Your task to perform on an android device: move an email to a new category in the gmail app Image 0: 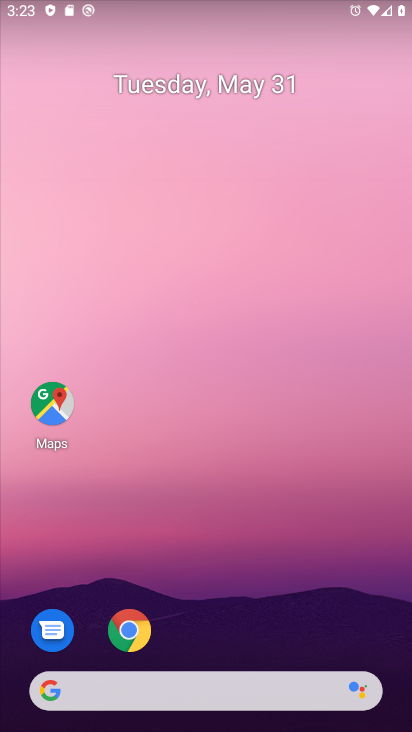
Step 0: drag from (339, 700) to (310, 16)
Your task to perform on an android device: move an email to a new category in the gmail app Image 1: 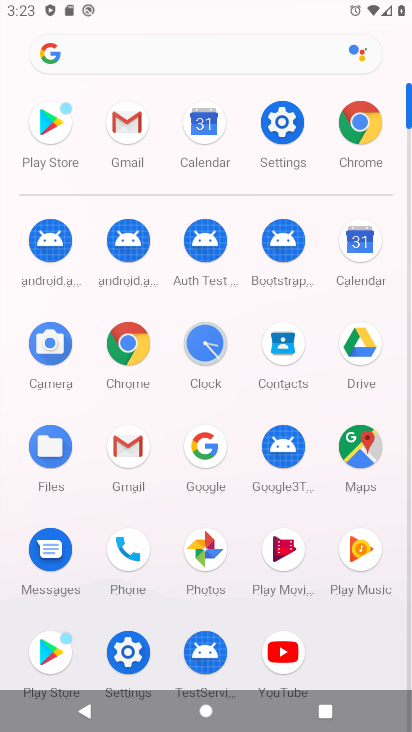
Step 1: click (139, 453)
Your task to perform on an android device: move an email to a new category in the gmail app Image 2: 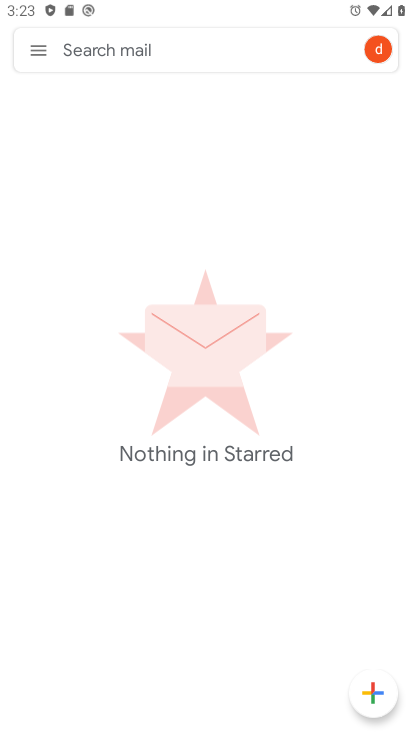
Step 2: click (35, 50)
Your task to perform on an android device: move an email to a new category in the gmail app Image 3: 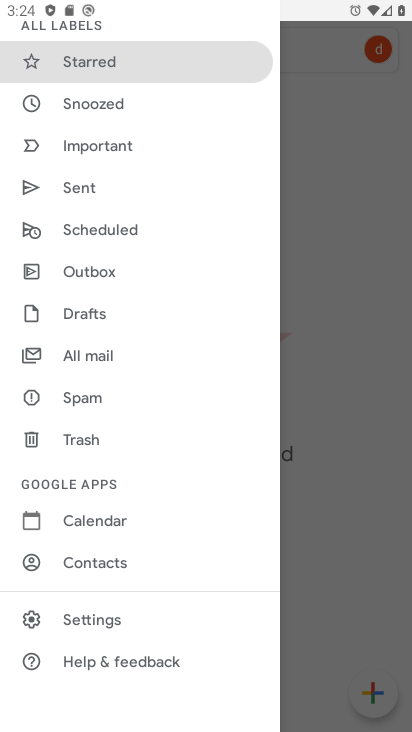
Step 3: task complete